Your task to perform on an android device: change alarm snooze length Image 0: 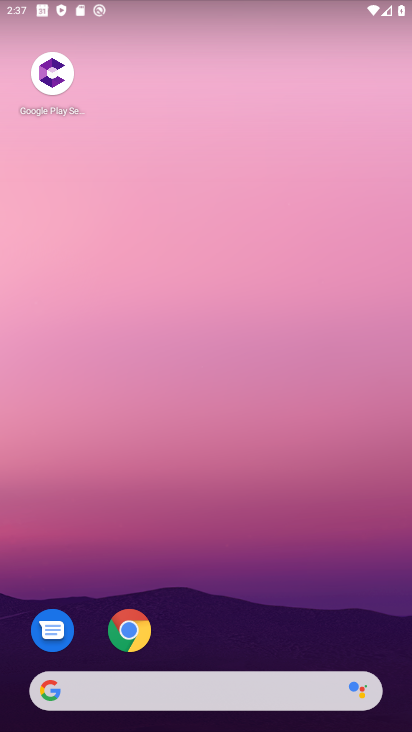
Step 0: drag from (211, 701) to (317, 110)
Your task to perform on an android device: change alarm snooze length Image 1: 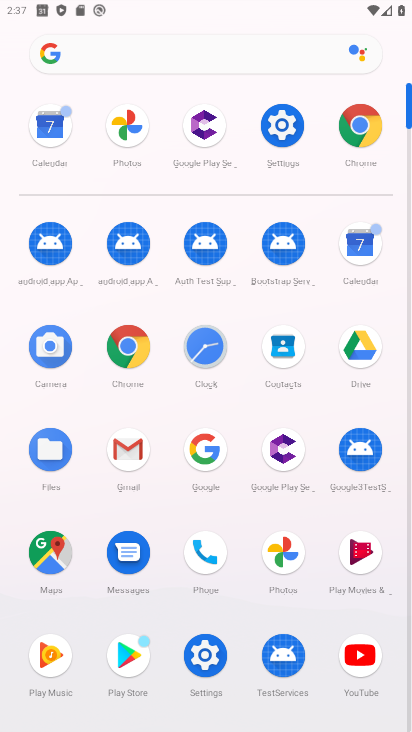
Step 1: click (215, 345)
Your task to perform on an android device: change alarm snooze length Image 2: 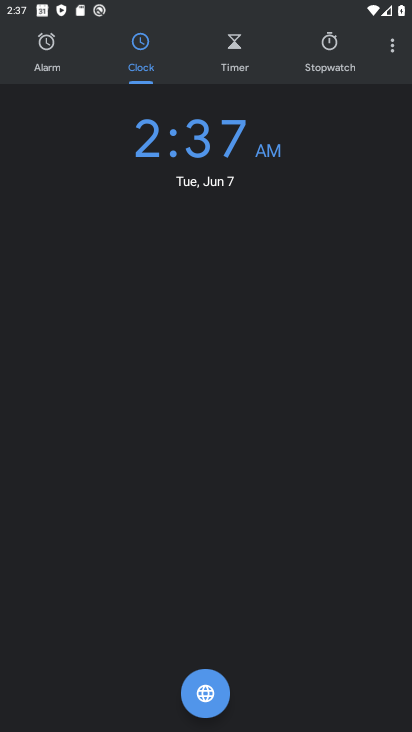
Step 2: click (390, 55)
Your task to perform on an android device: change alarm snooze length Image 3: 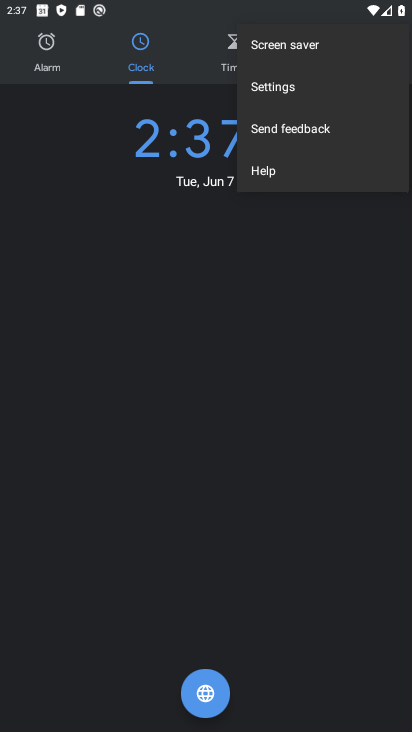
Step 3: click (289, 96)
Your task to perform on an android device: change alarm snooze length Image 4: 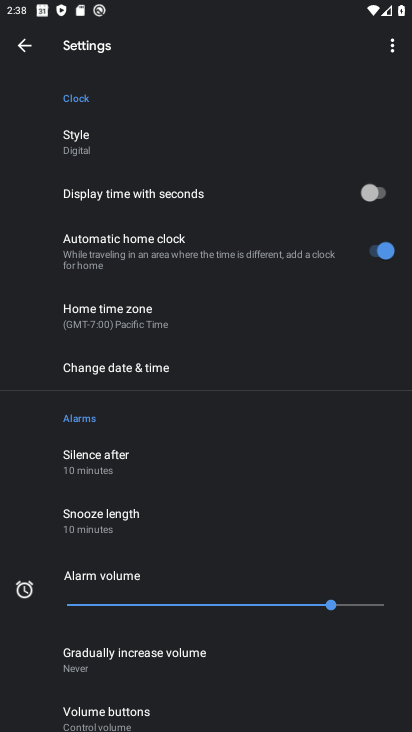
Step 4: click (130, 531)
Your task to perform on an android device: change alarm snooze length Image 5: 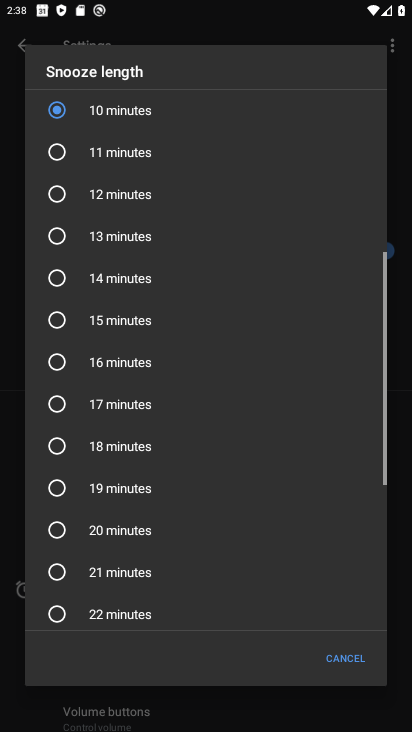
Step 5: click (83, 607)
Your task to perform on an android device: change alarm snooze length Image 6: 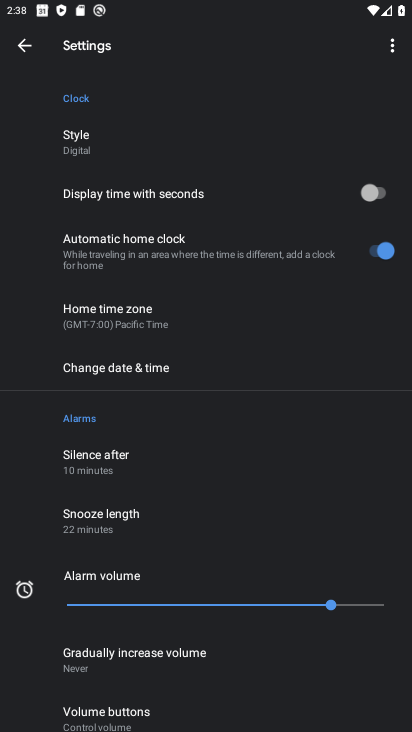
Step 6: task complete